Your task to perform on an android device: Search for vegetarian restaurants on Maps Image 0: 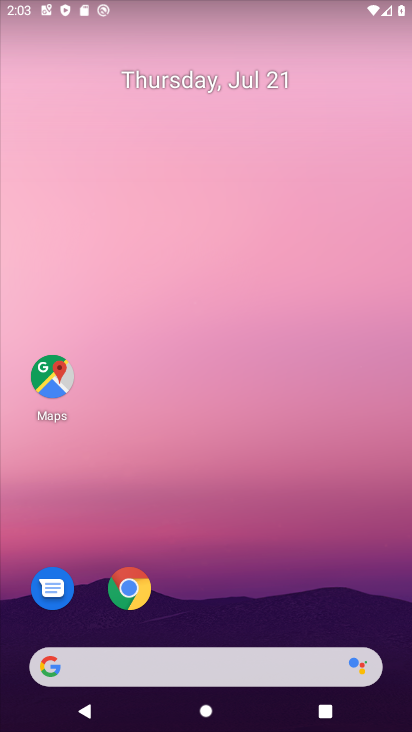
Step 0: drag from (200, 498) to (86, 265)
Your task to perform on an android device: Search for vegetarian restaurants on Maps Image 1: 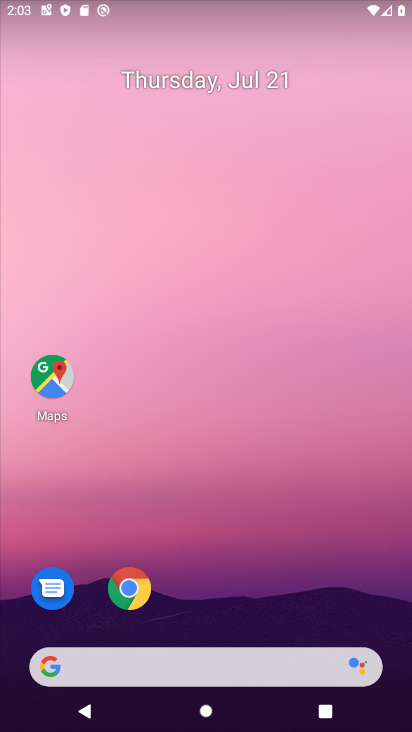
Step 1: drag from (215, 612) to (307, 369)
Your task to perform on an android device: Search for vegetarian restaurants on Maps Image 2: 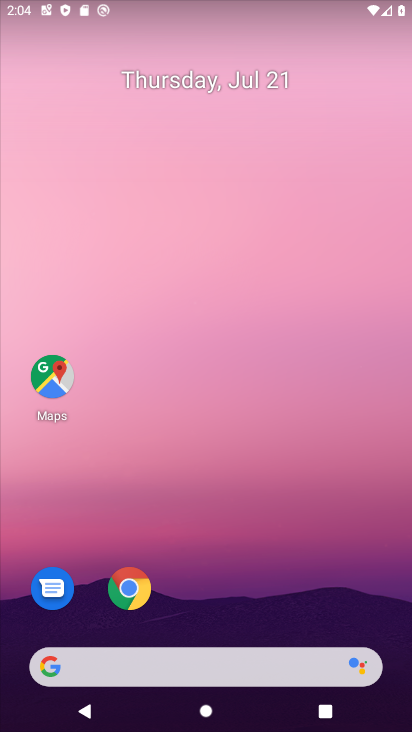
Step 2: drag from (208, 556) to (203, 274)
Your task to perform on an android device: Search for vegetarian restaurants on Maps Image 3: 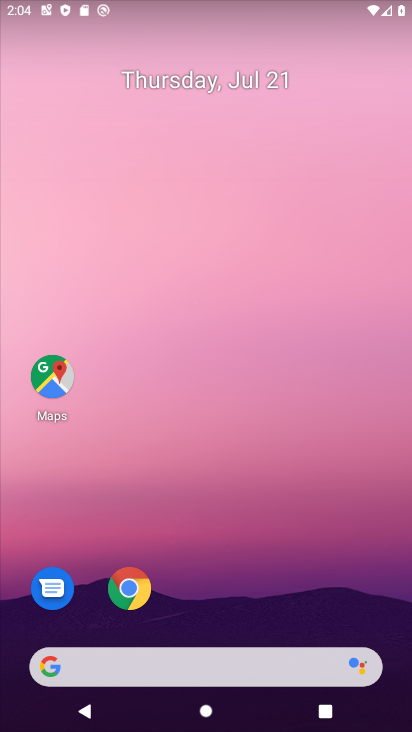
Step 3: drag from (209, 618) to (277, 297)
Your task to perform on an android device: Search for vegetarian restaurants on Maps Image 4: 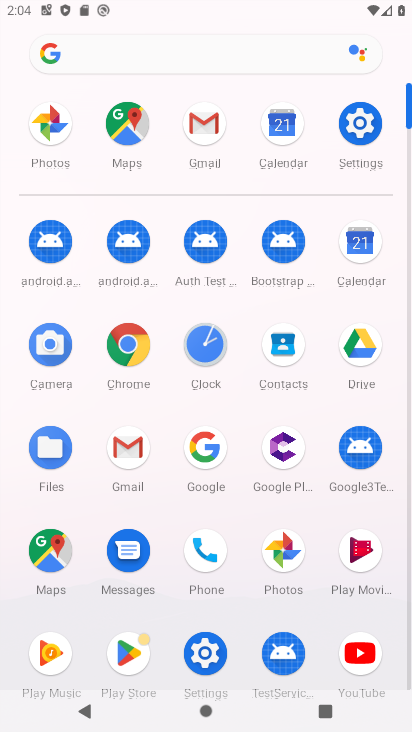
Step 4: click (51, 544)
Your task to perform on an android device: Search for vegetarian restaurants on Maps Image 5: 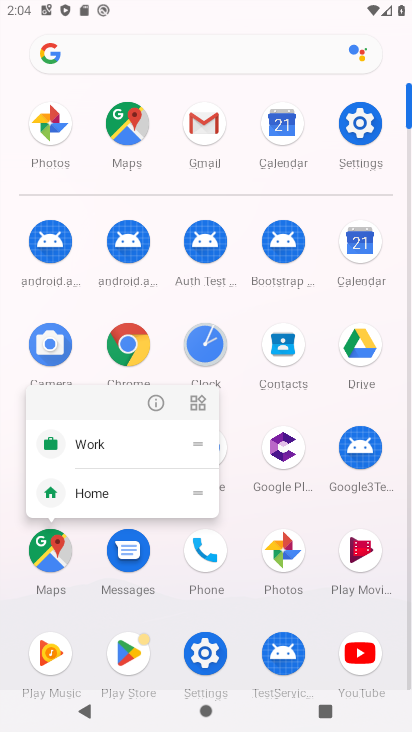
Step 5: click (156, 405)
Your task to perform on an android device: Search for vegetarian restaurants on Maps Image 6: 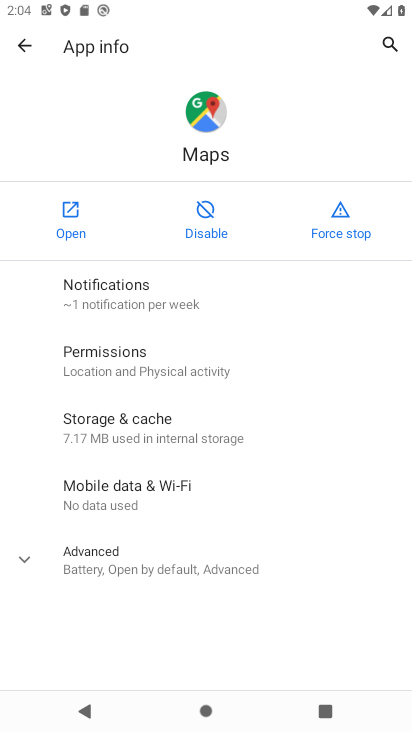
Step 6: click (70, 230)
Your task to perform on an android device: Search for vegetarian restaurants on Maps Image 7: 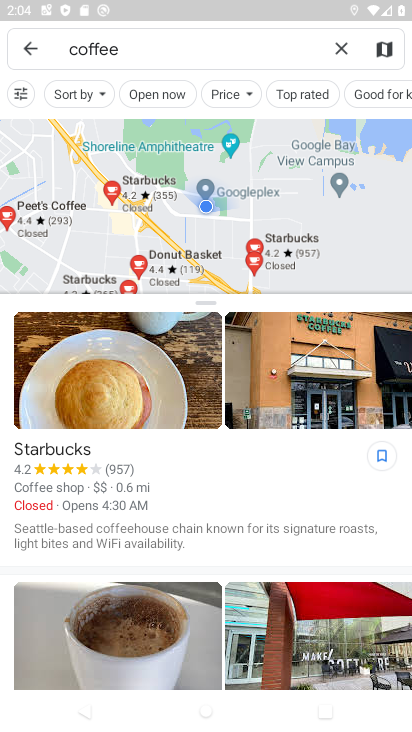
Step 7: drag from (227, 578) to (304, 158)
Your task to perform on an android device: Search for vegetarian restaurants on Maps Image 8: 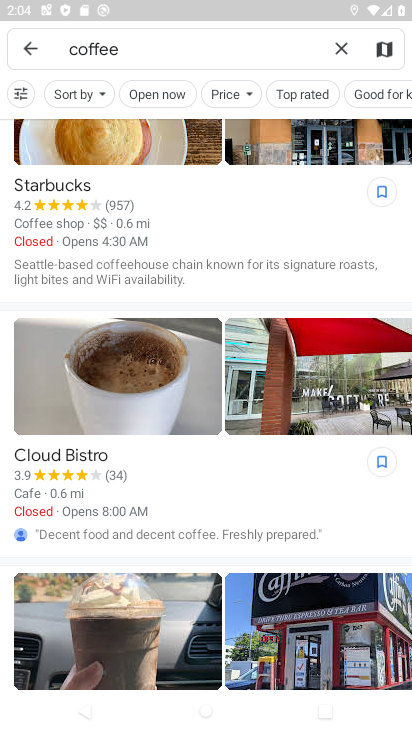
Step 8: drag from (226, 589) to (321, 29)
Your task to perform on an android device: Search for vegetarian restaurants on Maps Image 9: 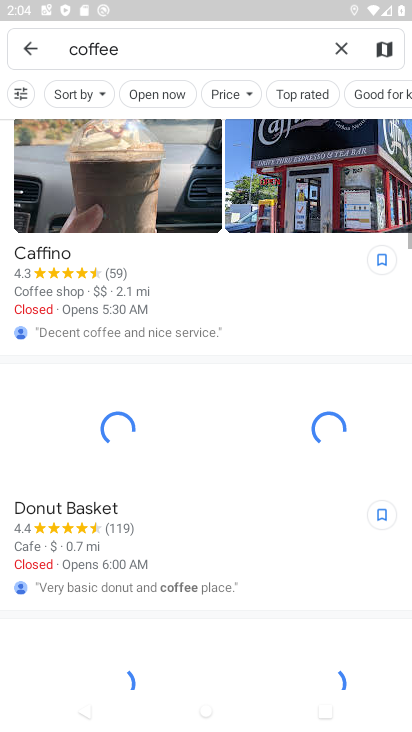
Step 9: drag from (197, 203) to (247, 720)
Your task to perform on an android device: Search for vegetarian restaurants on Maps Image 10: 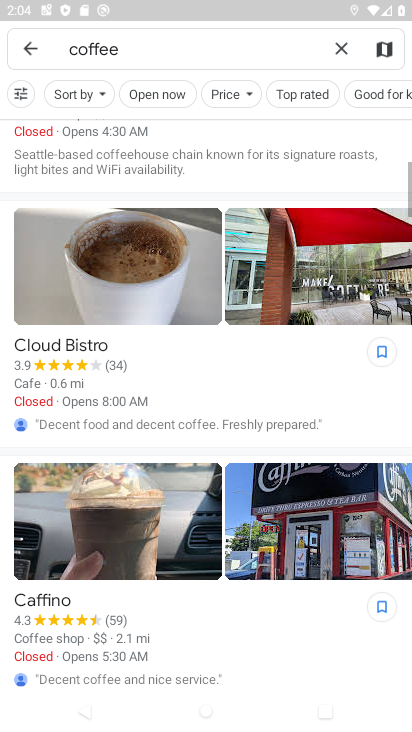
Step 10: drag from (198, 589) to (216, 358)
Your task to perform on an android device: Search for vegetarian restaurants on Maps Image 11: 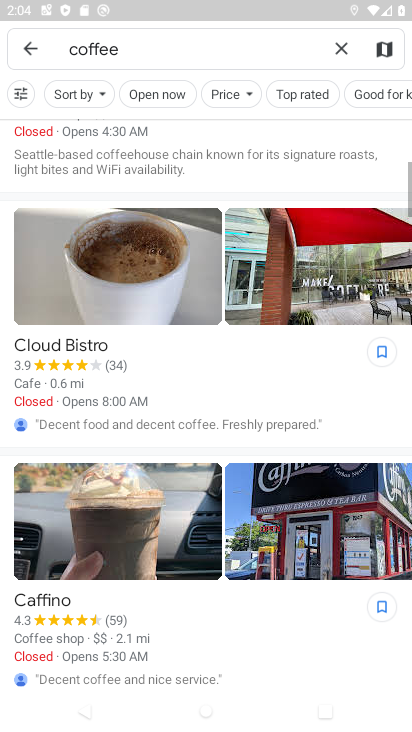
Step 11: drag from (230, 340) to (264, 715)
Your task to perform on an android device: Search for vegetarian restaurants on Maps Image 12: 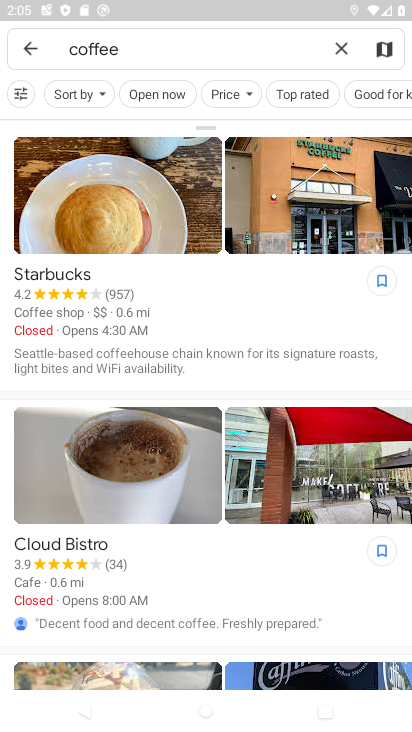
Step 12: drag from (211, 232) to (266, 632)
Your task to perform on an android device: Search for vegetarian restaurants on Maps Image 13: 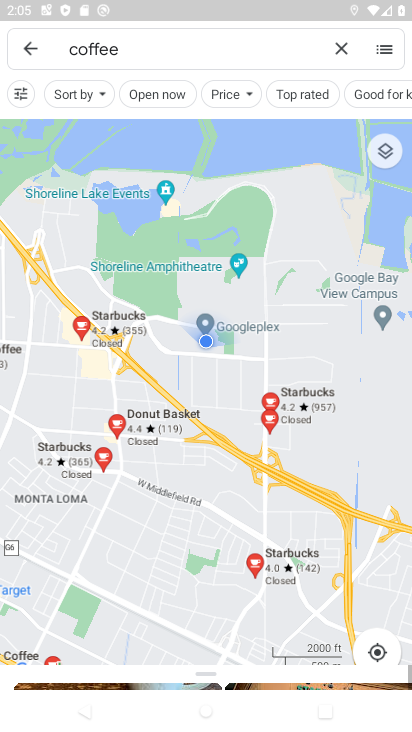
Step 13: click (337, 51)
Your task to perform on an android device: Search for vegetarian restaurants on Maps Image 14: 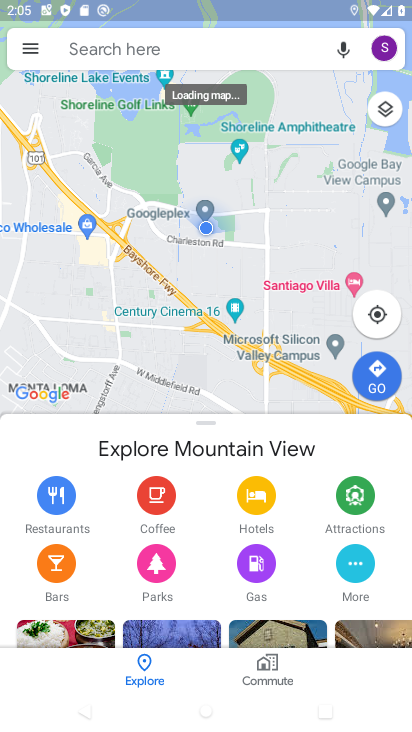
Step 14: click (174, 53)
Your task to perform on an android device: Search for vegetarian restaurants on Maps Image 15: 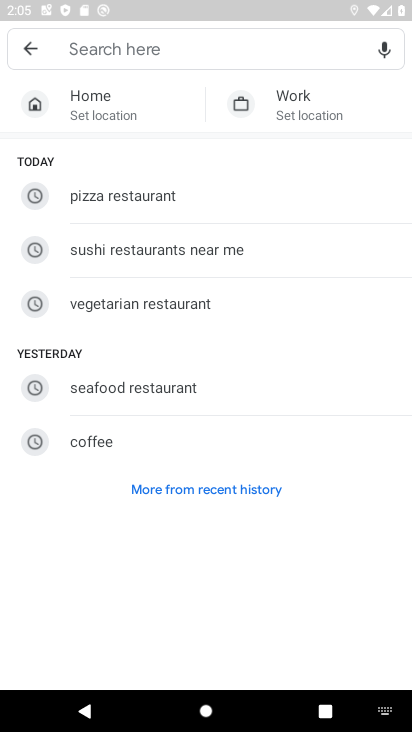
Step 15: click (172, 304)
Your task to perform on an android device: Search for vegetarian restaurants on Maps Image 16: 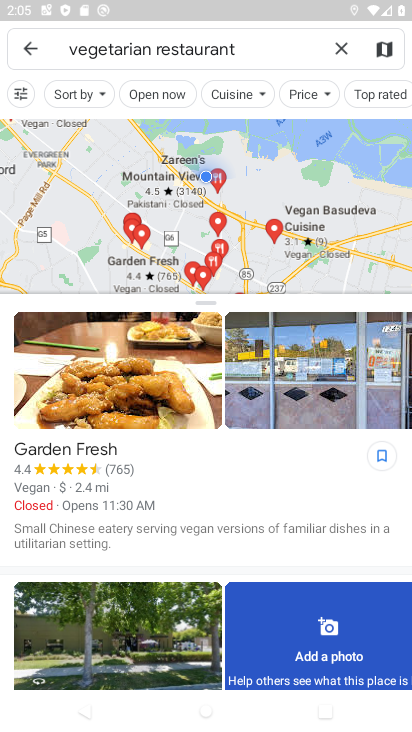
Step 16: task complete